Your task to perform on an android device: Turn off the flashlight Image 0: 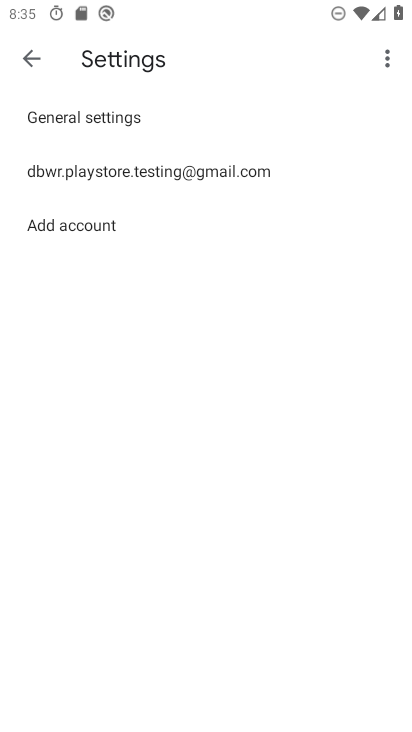
Step 0: press home button
Your task to perform on an android device: Turn off the flashlight Image 1: 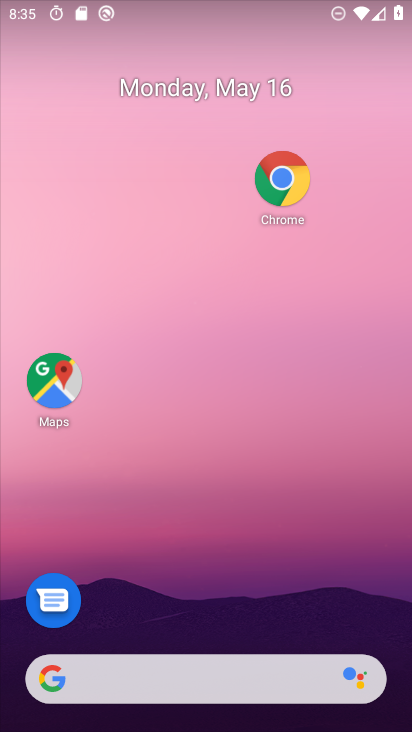
Step 1: task complete